Your task to perform on an android device: Find coffee shops on Maps Image 0: 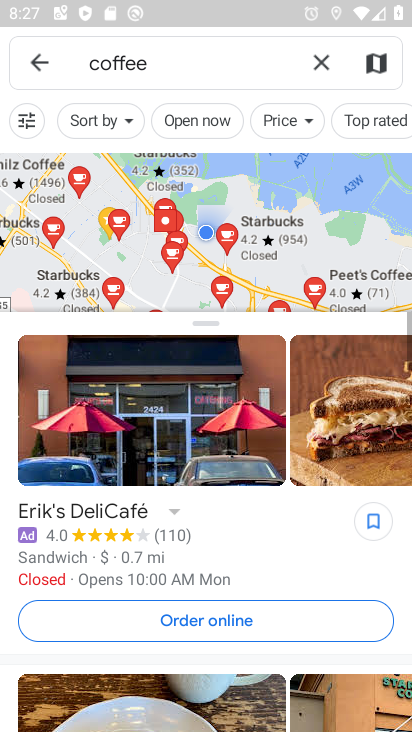
Step 0: press back button
Your task to perform on an android device: Find coffee shops on Maps Image 1: 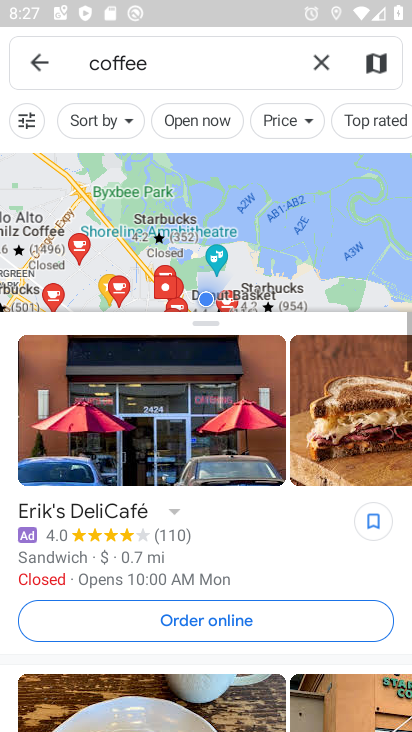
Step 1: press home button
Your task to perform on an android device: Find coffee shops on Maps Image 2: 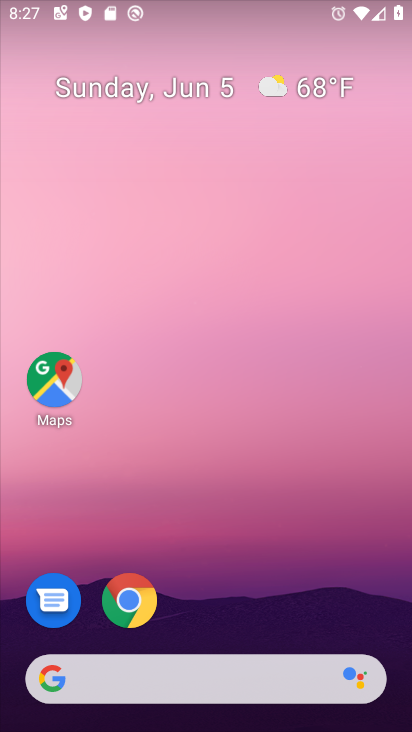
Step 2: drag from (380, 600) to (259, 60)
Your task to perform on an android device: Find coffee shops on Maps Image 3: 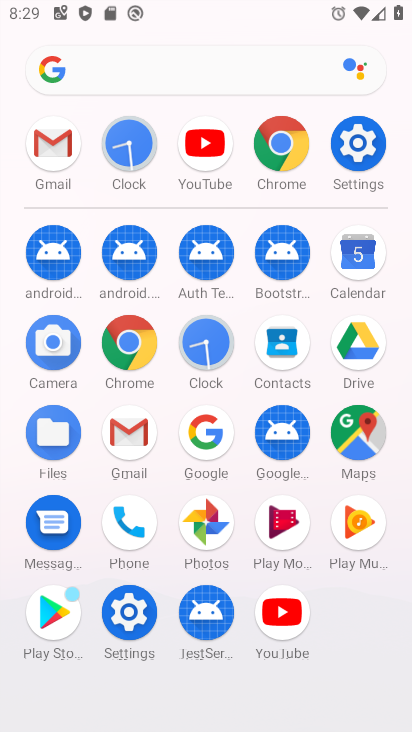
Step 3: click (359, 426)
Your task to perform on an android device: Find coffee shops on Maps Image 4: 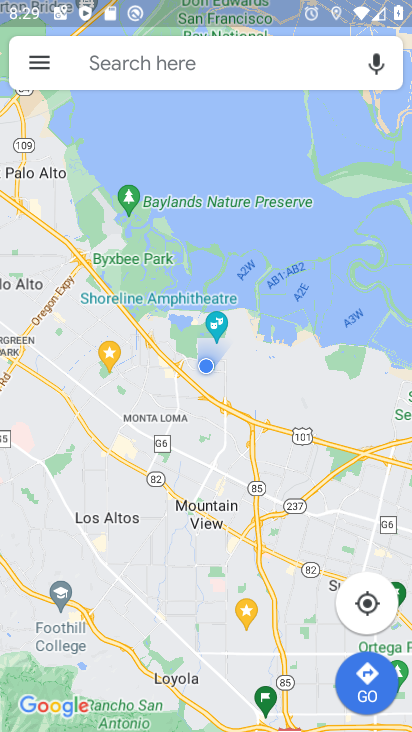
Step 4: click (103, 74)
Your task to perform on an android device: Find coffee shops on Maps Image 5: 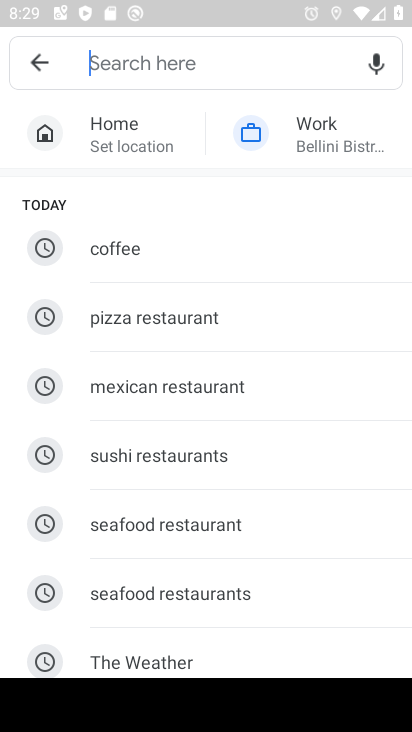
Step 5: click (159, 265)
Your task to perform on an android device: Find coffee shops on Maps Image 6: 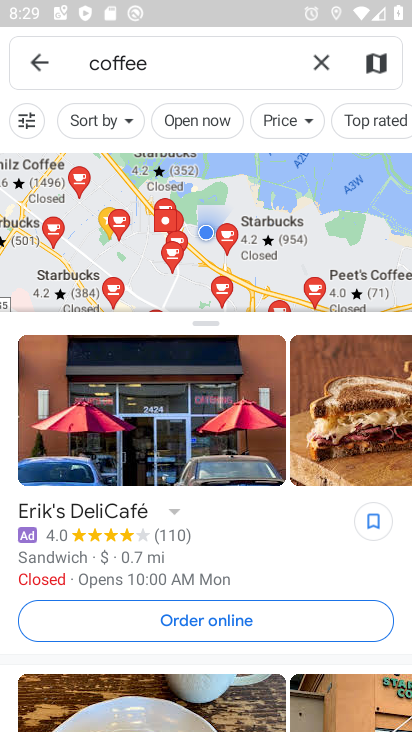
Step 6: task complete